Your task to perform on an android device: change text size in settings app Image 0: 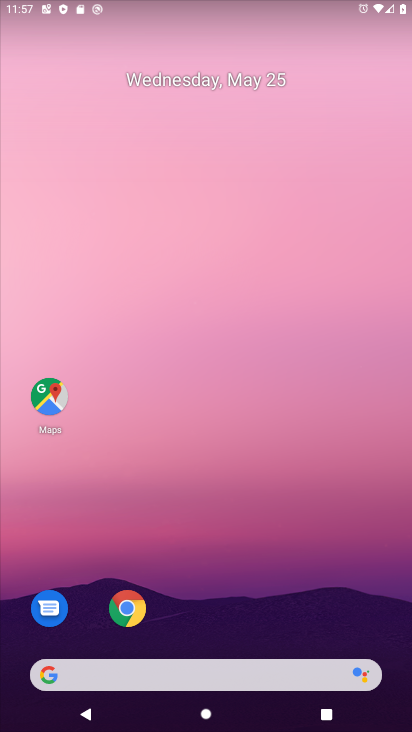
Step 0: drag from (229, 653) to (245, 39)
Your task to perform on an android device: change text size in settings app Image 1: 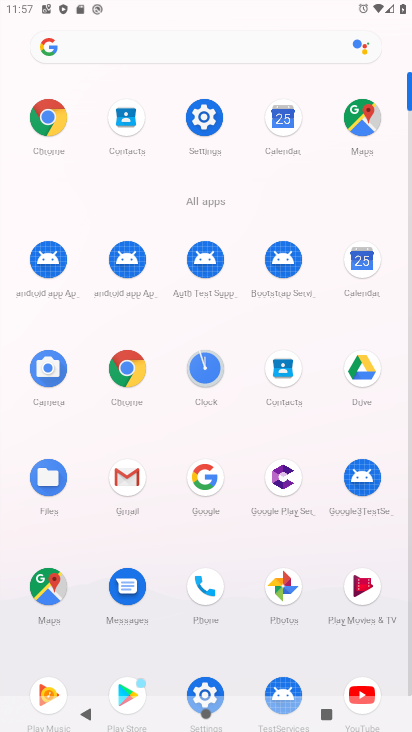
Step 1: click (210, 116)
Your task to perform on an android device: change text size in settings app Image 2: 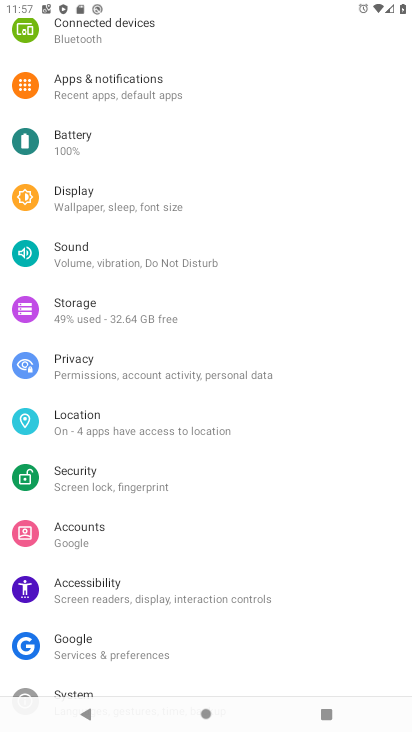
Step 2: drag from (176, 170) to (175, 352)
Your task to perform on an android device: change text size in settings app Image 3: 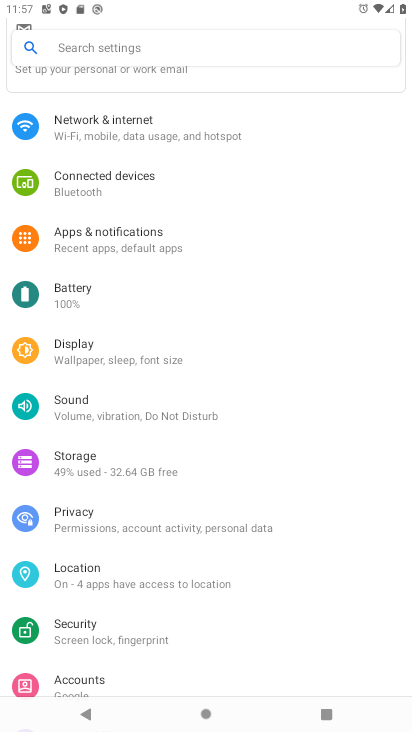
Step 3: click (145, 357)
Your task to perform on an android device: change text size in settings app Image 4: 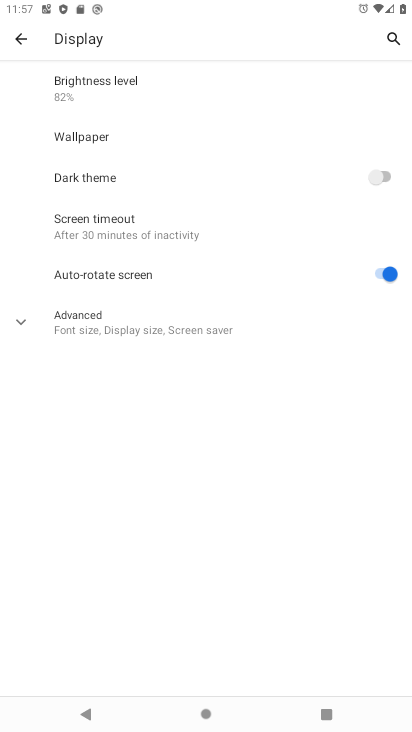
Step 4: click (146, 325)
Your task to perform on an android device: change text size in settings app Image 5: 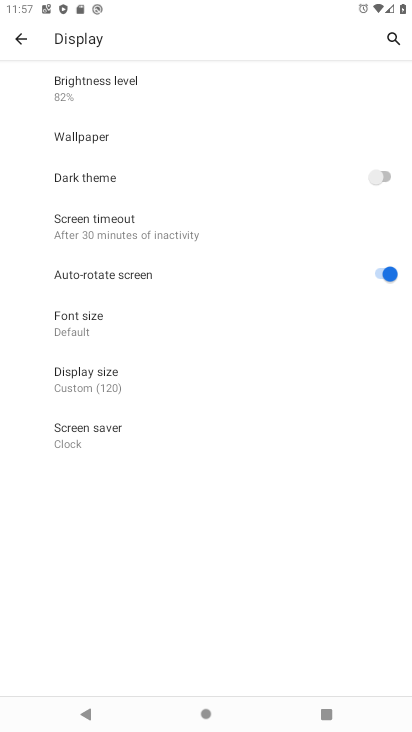
Step 5: click (78, 319)
Your task to perform on an android device: change text size in settings app Image 6: 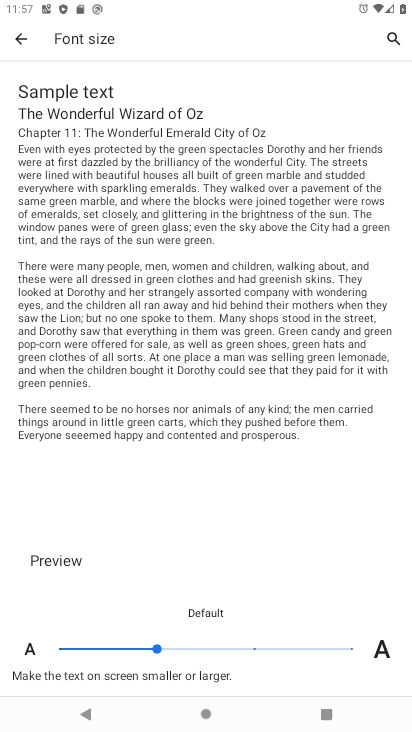
Step 6: click (214, 644)
Your task to perform on an android device: change text size in settings app Image 7: 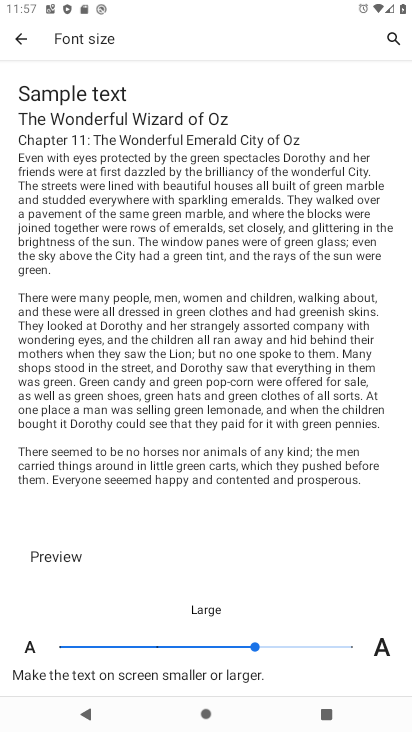
Step 7: task complete